Your task to perform on an android device: Turn on the flashlight Image 0: 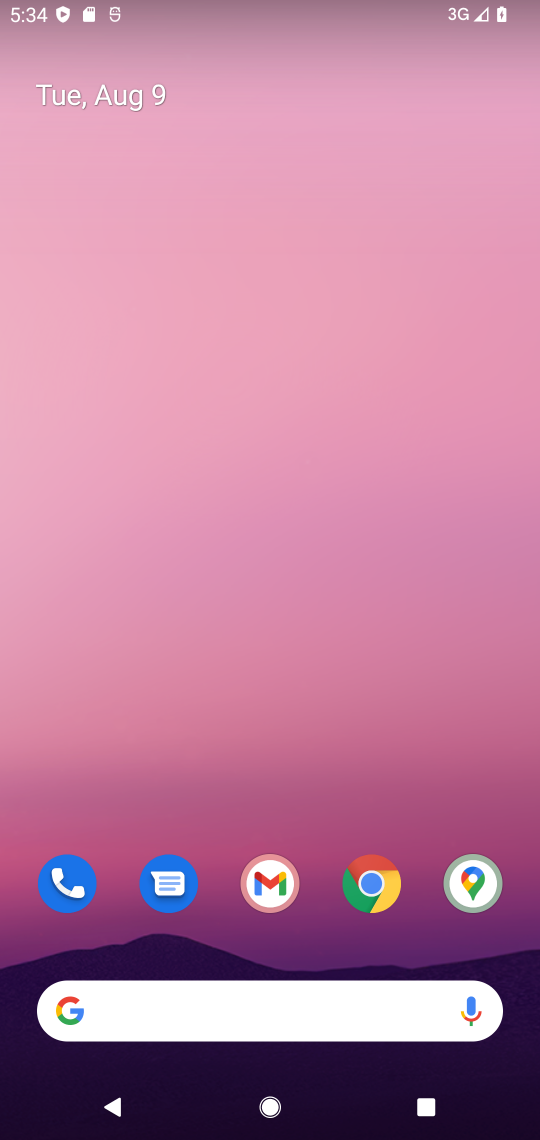
Step 0: drag from (294, 783) to (209, 182)
Your task to perform on an android device: Turn on the flashlight Image 1: 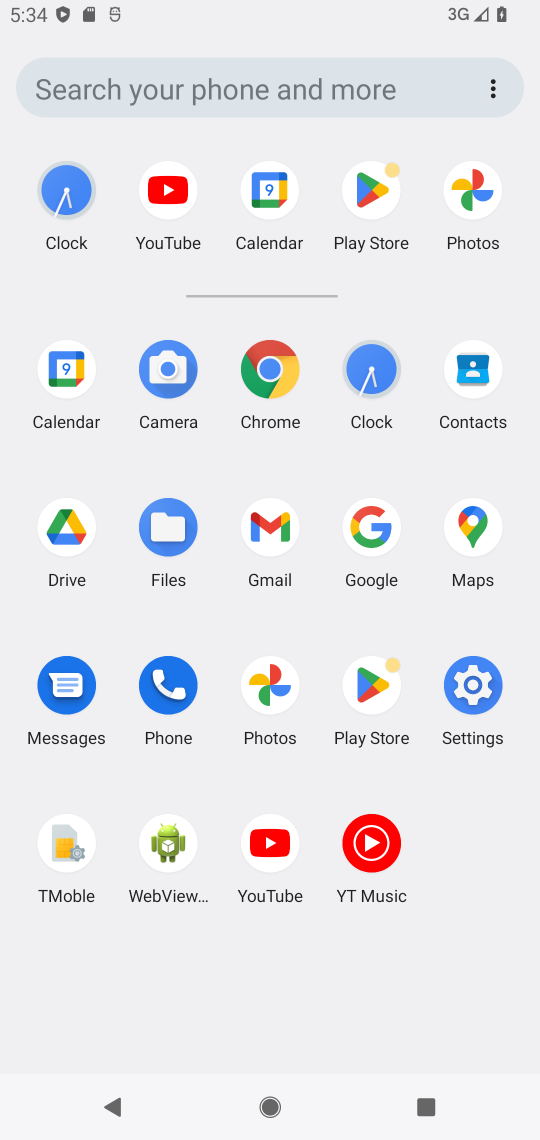
Step 1: click (470, 693)
Your task to perform on an android device: Turn on the flashlight Image 2: 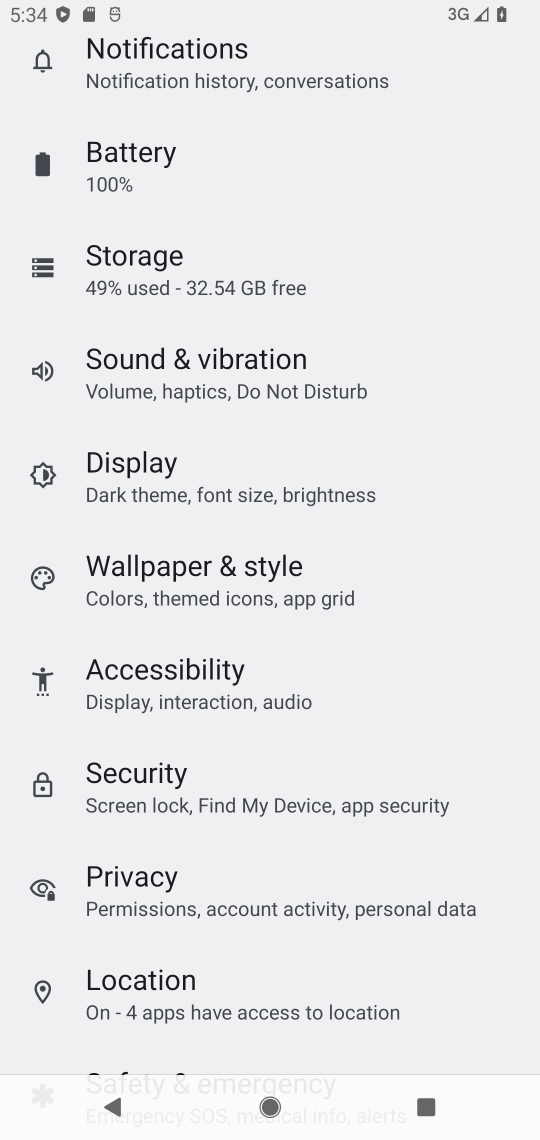
Step 2: task complete